Your task to perform on an android device: turn on data saver in the chrome app Image 0: 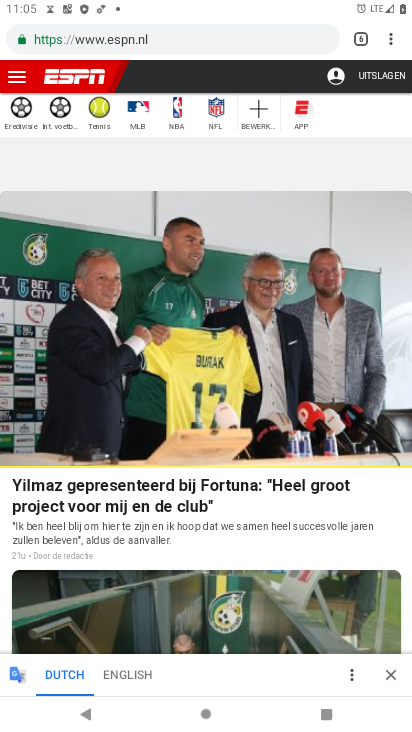
Step 0: click (393, 42)
Your task to perform on an android device: turn on data saver in the chrome app Image 1: 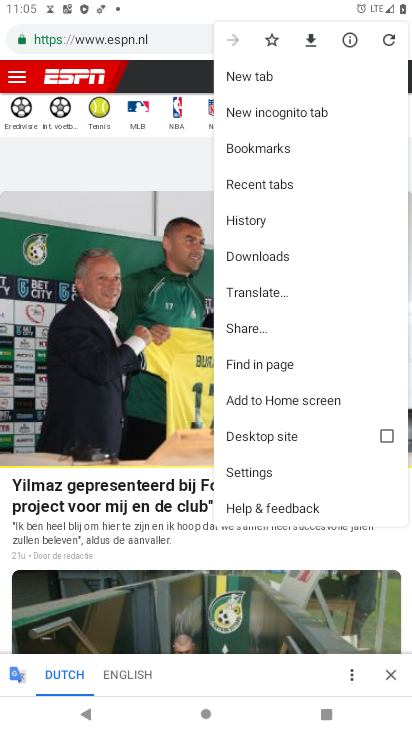
Step 1: click (249, 470)
Your task to perform on an android device: turn on data saver in the chrome app Image 2: 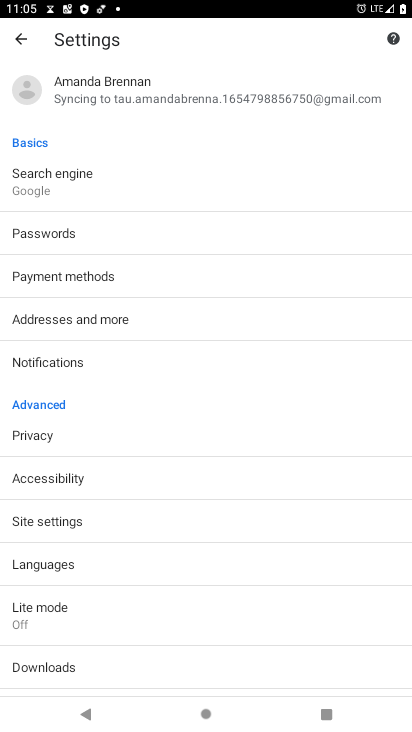
Step 2: click (49, 614)
Your task to perform on an android device: turn on data saver in the chrome app Image 3: 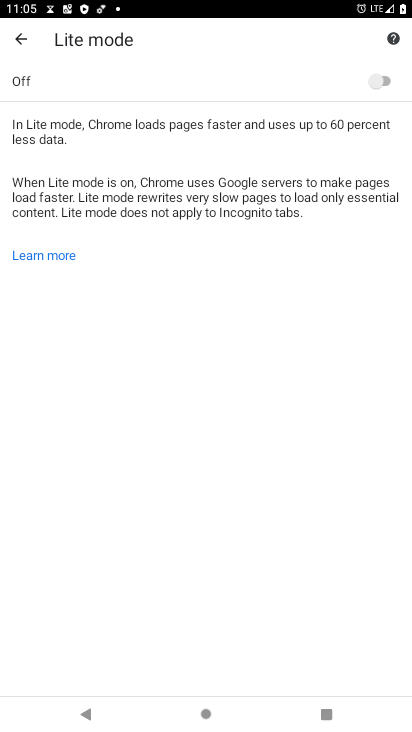
Step 3: click (382, 83)
Your task to perform on an android device: turn on data saver in the chrome app Image 4: 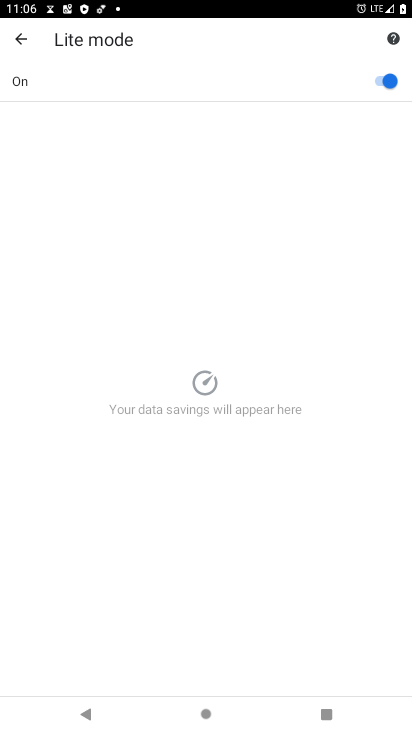
Step 4: task complete